Your task to perform on an android device: Go to location settings Image 0: 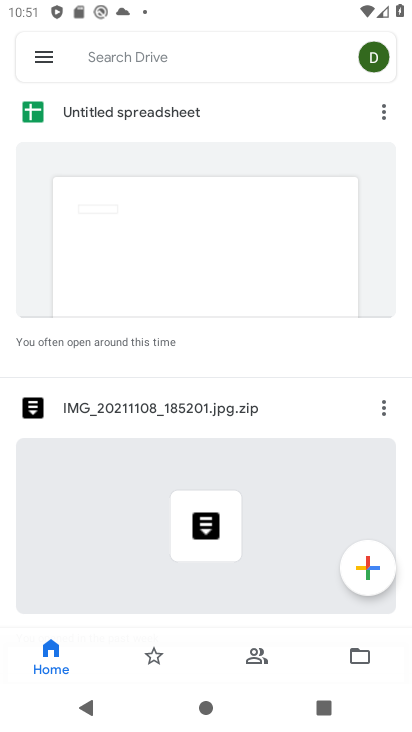
Step 0: press home button
Your task to perform on an android device: Go to location settings Image 1: 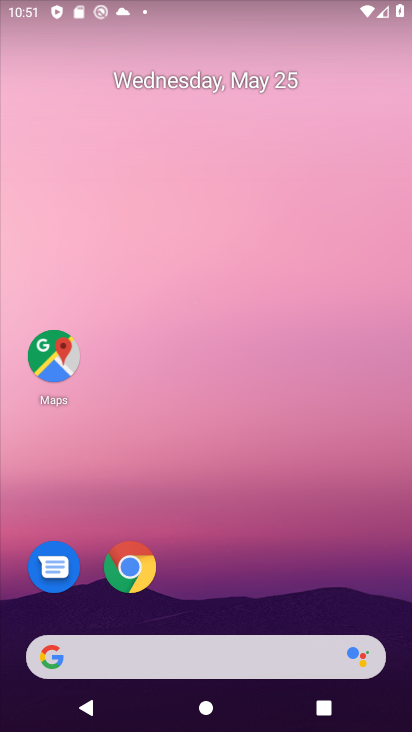
Step 1: drag from (214, 553) to (248, 1)
Your task to perform on an android device: Go to location settings Image 2: 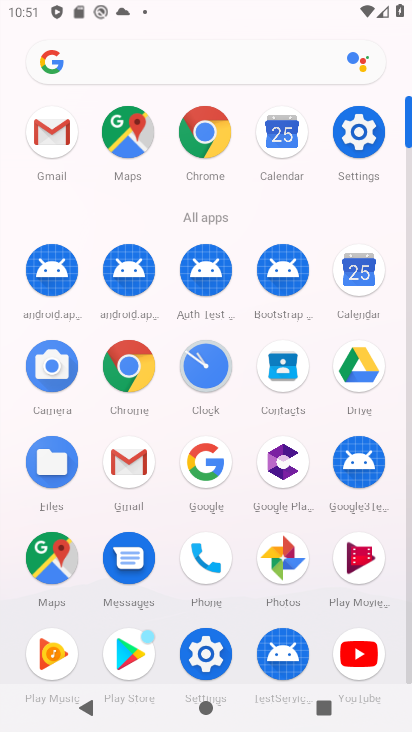
Step 2: click (210, 646)
Your task to perform on an android device: Go to location settings Image 3: 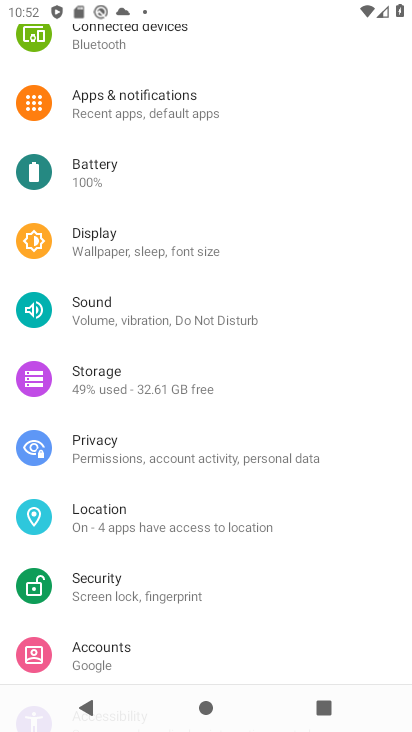
Step 3: click (134, 525)
Your task to perform on an android device: Go to location settings Image 4: 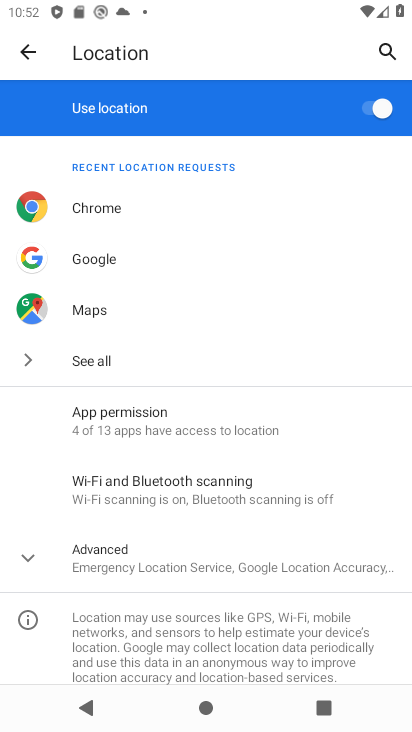
Step 4: task complete